Your task to perform on an android device: toggle priority inbox in the gmail app Image 0: 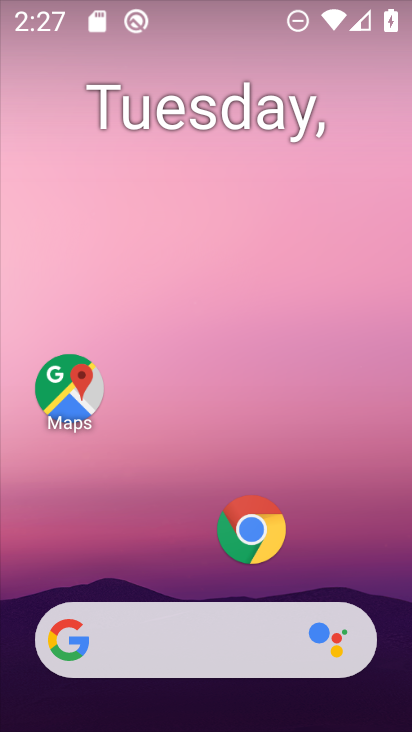
Step 0: drag from (253, 686) to (161, 0)
Your task to perform on an android device: toggle priority inbox in the gmail app Image 1: 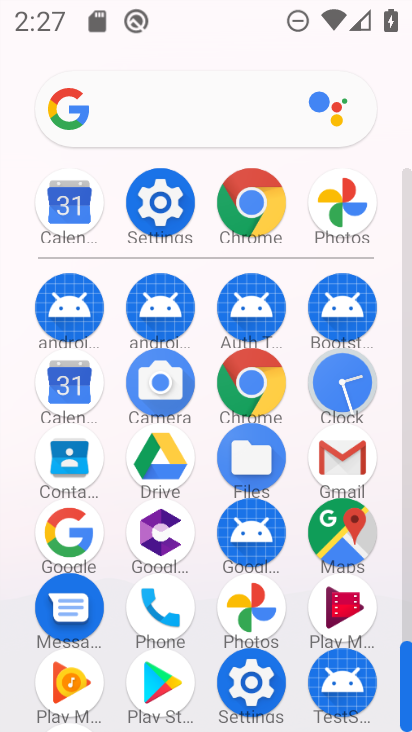
Step 1: click (341, 446)
Your task to perform on an android device: toggle priority inbox in the gmail app Image 2: 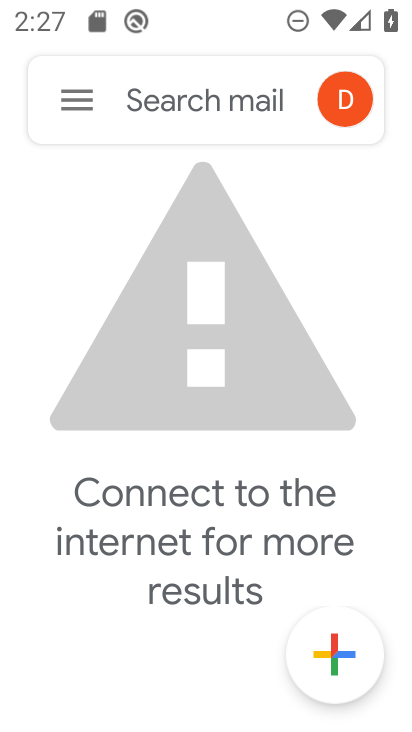
Step 2: click (87, 110)
Your task to perform on an android device: toggle priority inbox in the gmail app Image 3: 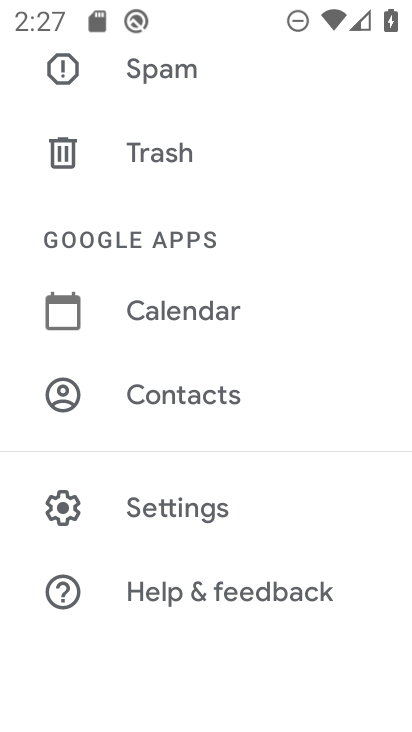
Step 3: click (136, 524)
Your task to perform on an android device: toggle priority inbox in the gmail app Image 4: 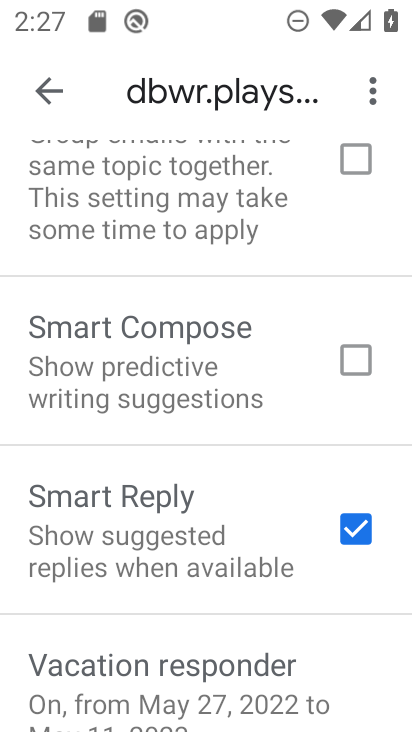
Step 4: drag from (153, 384) to (83, 717)
Your task to perform on an android device: toggle priority inbox in the gmail app Image 5: 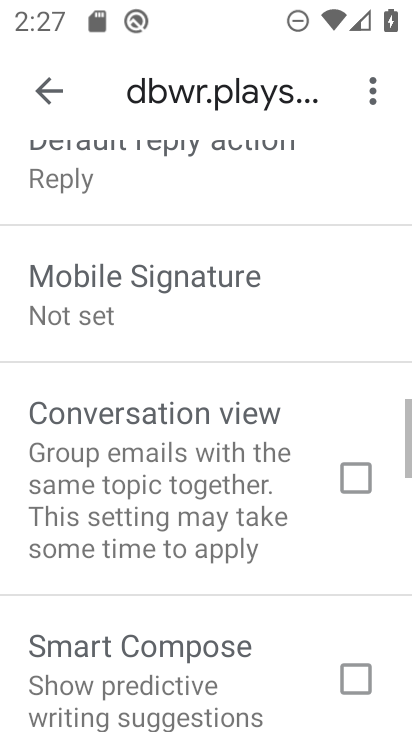
Step 5: drag from (119, 161) to (134, 728)
Your task to perform on an android device: toggle priority inbox in the gmail app Image 6: 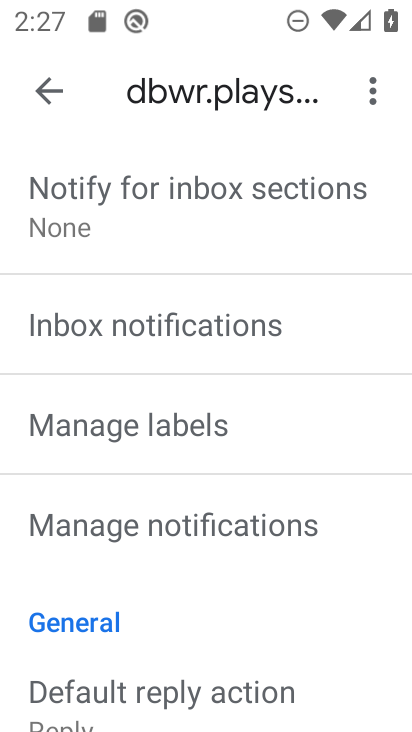
Step 6: drag from (130, 311) to (128, 576)
Your task to perform on an android device: toggle priority inbox in the gmail app Image 7: 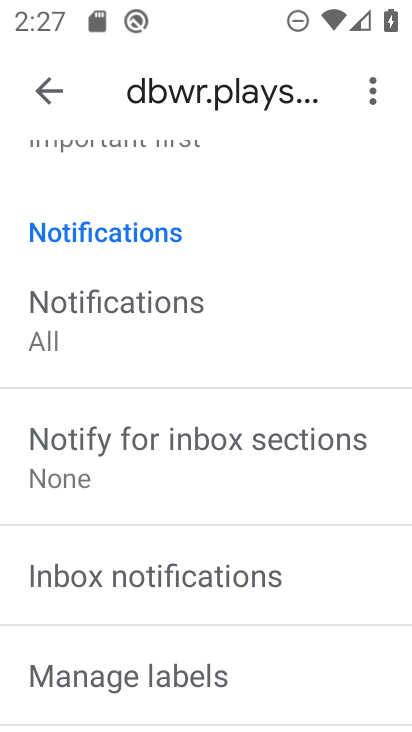
Step 7: drag from (116, 217) to (165, 426)
Your task to perform on an android device: toggle priority inbox in the gmail app Image 8: 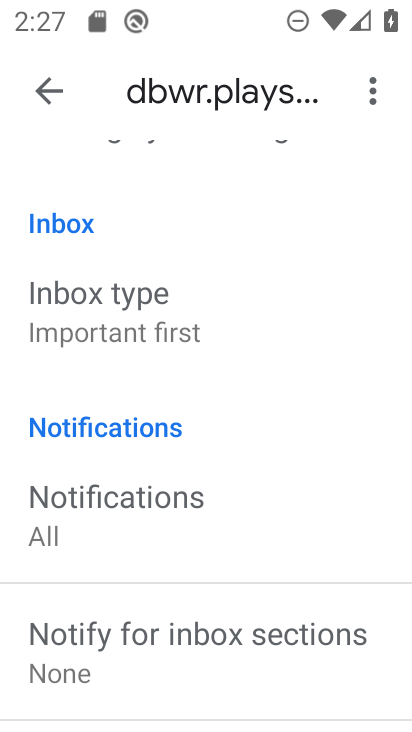
Step 8: drag from (104, 215) to (84, 392)
Your task to perform on an android device: toggle priority inbox in the gmail app Image 9: 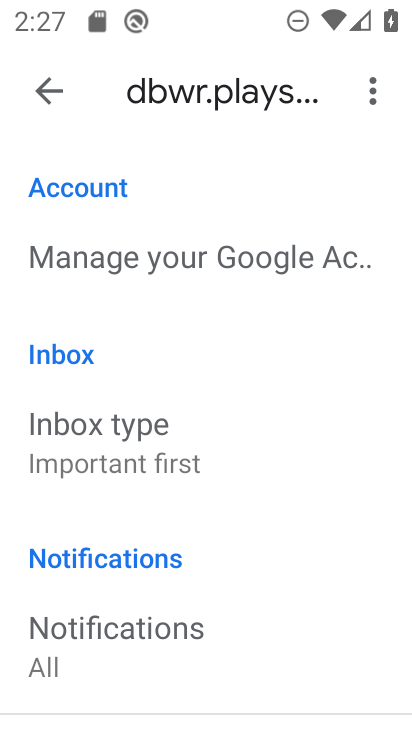
Step 9: click (79, 452)
Your task to perform on an android device: toggle priority inbox in the gmail app Image 10: 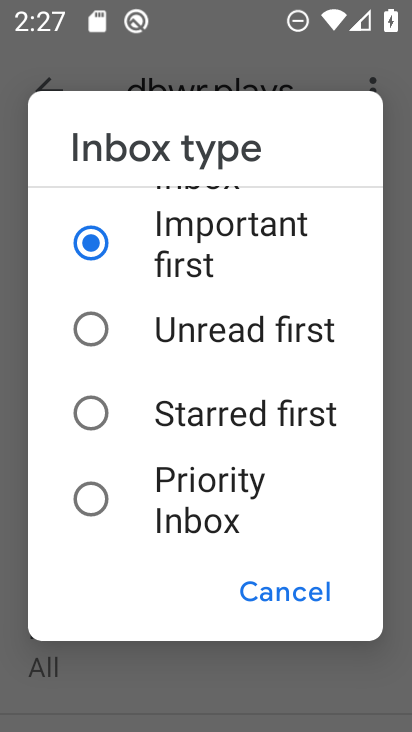
Step 10: task complete